Your task to perform on an android device: What's the news in Japan? Image 0: 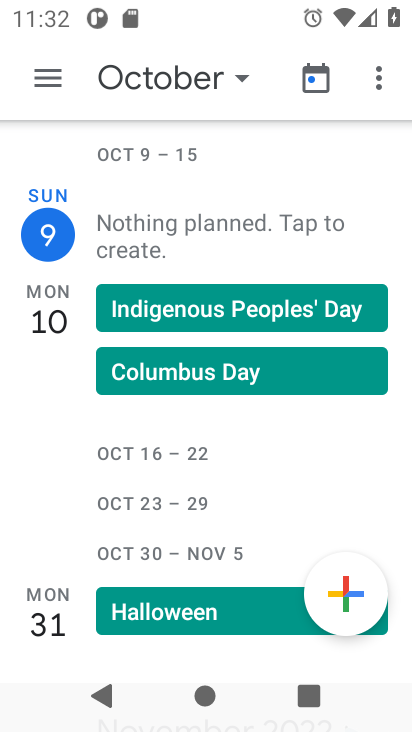
Step 0: press home button
Your task to perform on an android device: What's the news in Japan? Image 1: 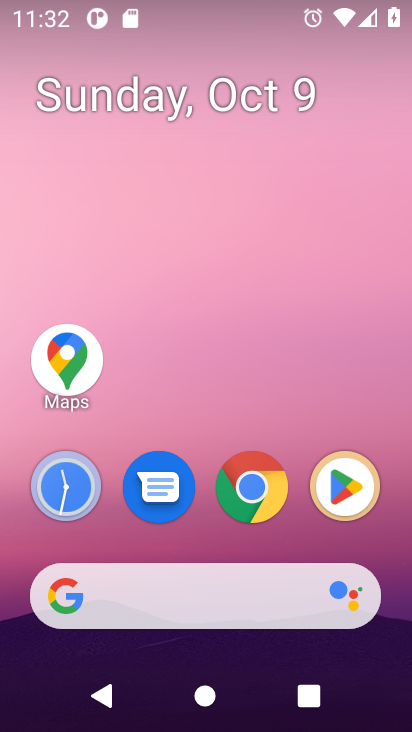
Step 1: drag from (204, 550) to (203, 47)
Your task to perform on an android device: What's the news in Japan? Image 2: 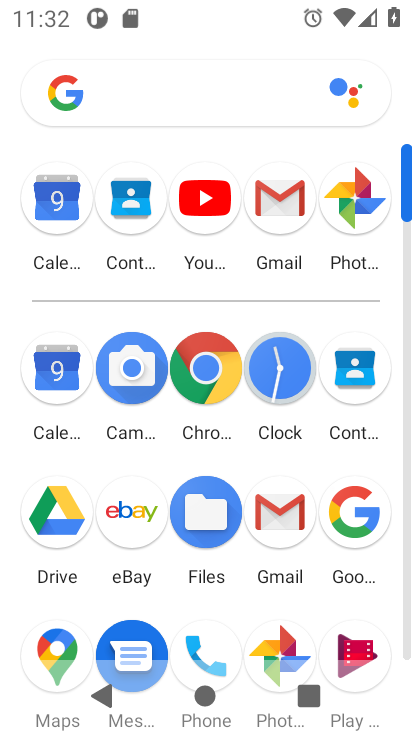
Step 2: click (208, 376)
Your task to perform on an android device: What's the news in Japan? Image 3: 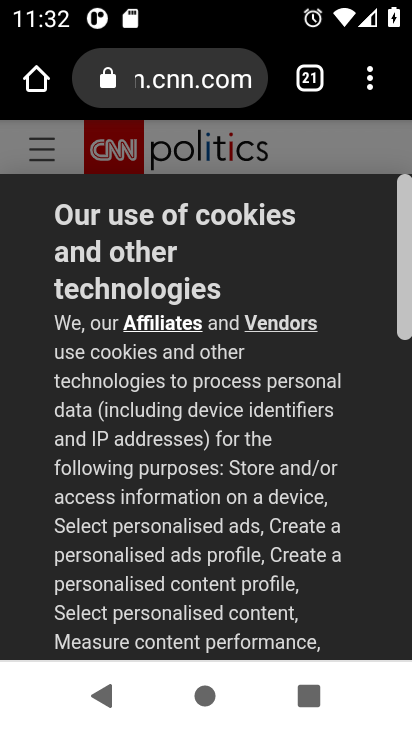
Step 3: drag from (370, 81) to (99, 149)
Your task to perform on an android device: What's the news in Japan? Image 4: 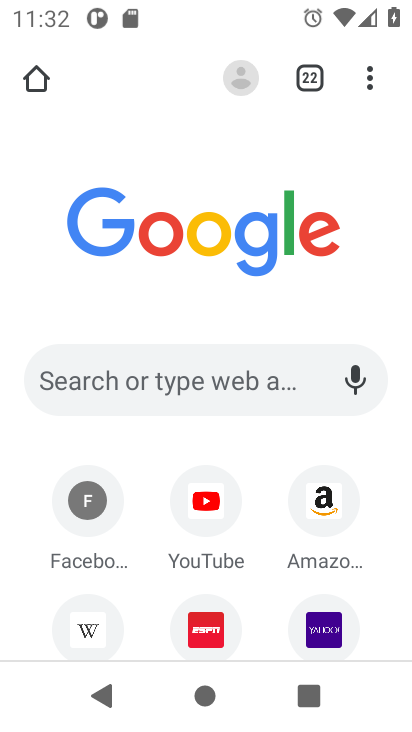
Step 4: click (218, 381)
Your task to perform on an android device: What's the news in Japan? Image 5: 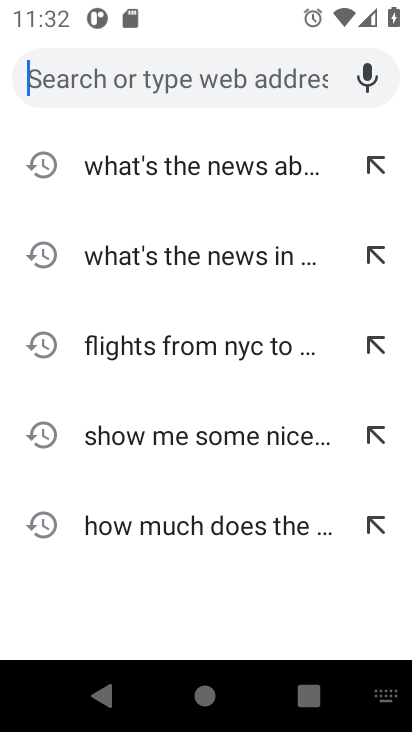
Step 5: type "What's the news in Japan?"
Your task to perform on an android device: What's the news in Japan? Image 6: 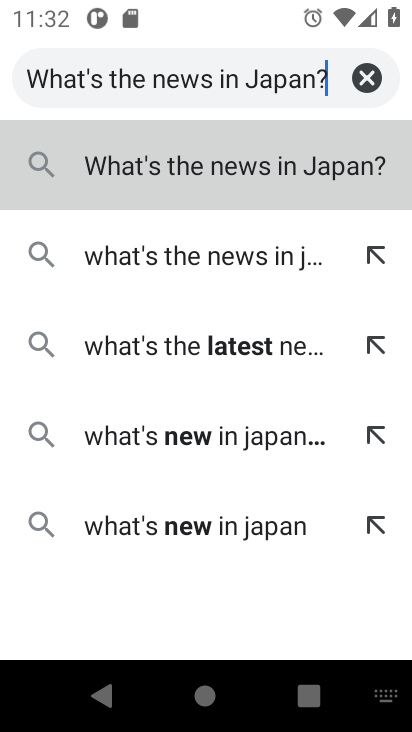
Step 6: type ""
Your task to perform on an android device: What's the news in Japan? Image 7: 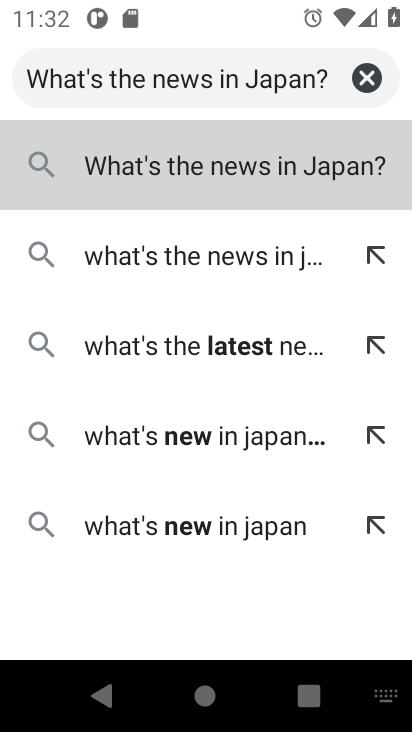
Step 7: click (231, 156)
Your task to perform on an android device: What's the news in Japan? Image 8: 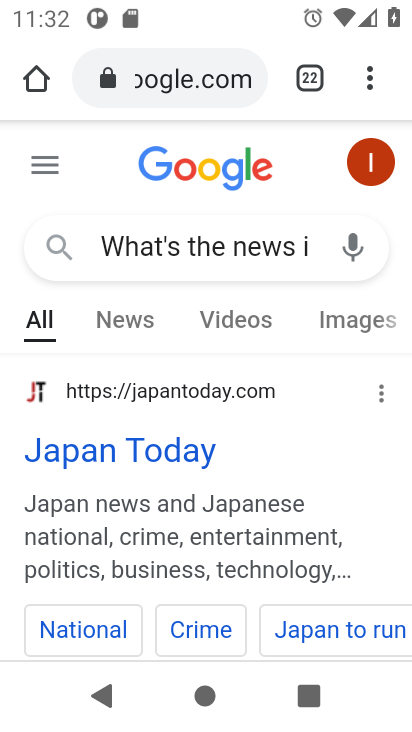
Step 8: click (115, 317)
Your task to perform on an android device: What's the news in Japan? Image 9: 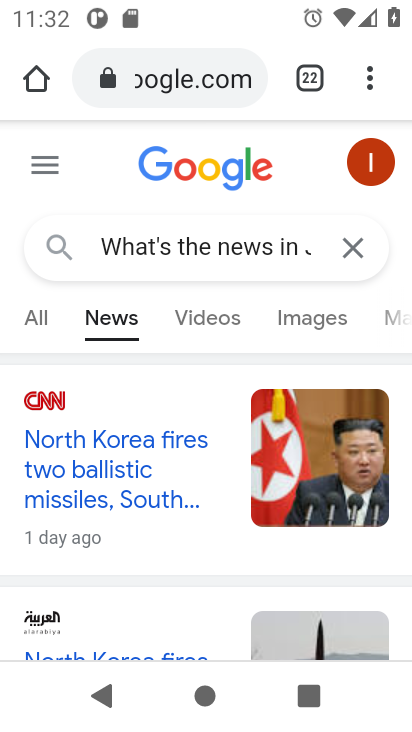
Step 9: task complete